Your task to perform on an android device: What's on Reddit today Image 0: 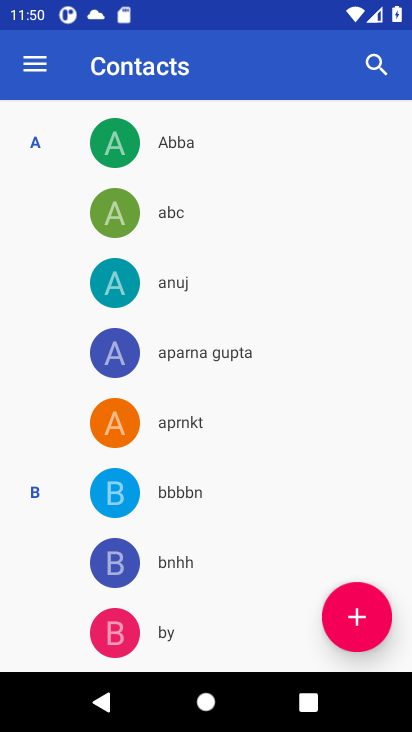
Step 0: press home button
Your task to perform on an android device: What's on Reddit today Image 1: 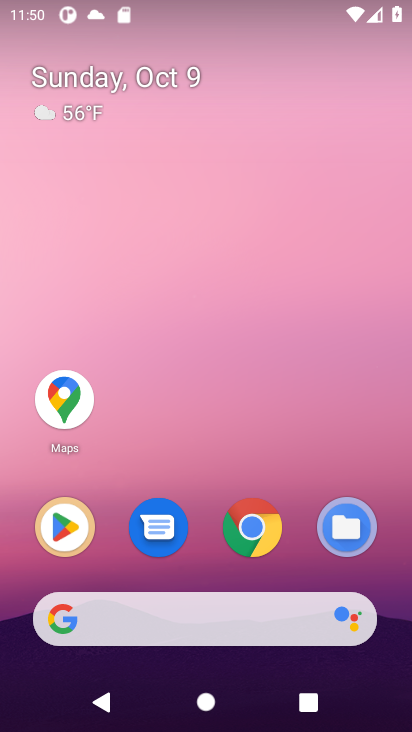
Step 1: click (112, 620)
Your task to perform on an android device: What's on Reddit today Image 2: 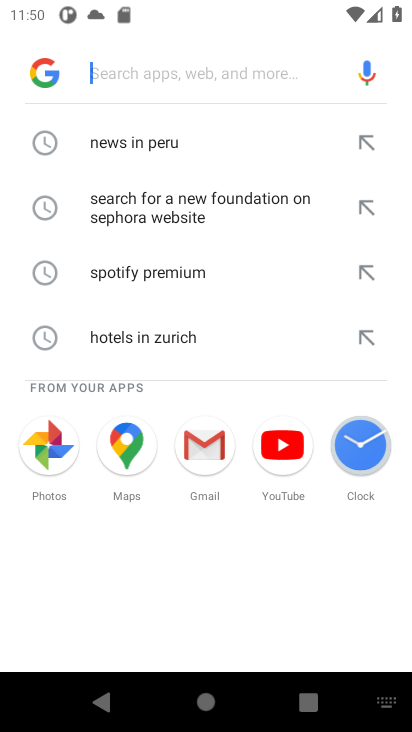
Step 2: click (124, 71)
Your task to perform on an android device: What's on Reddit today Image 3: 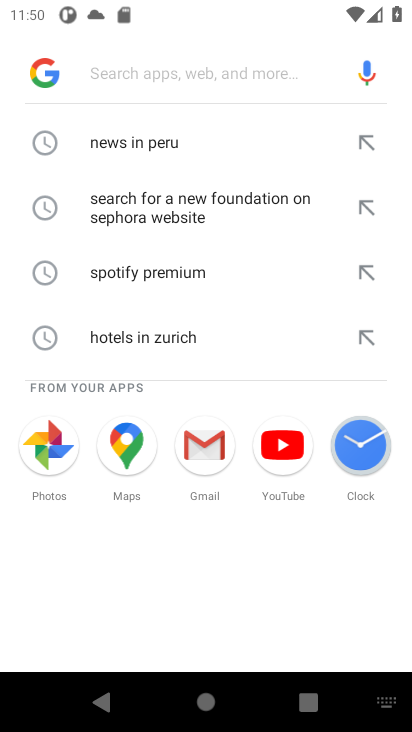
Step 3: type "What's on Reddit today"
Your task to perform on an android device: What's on Reddit today Image 4: 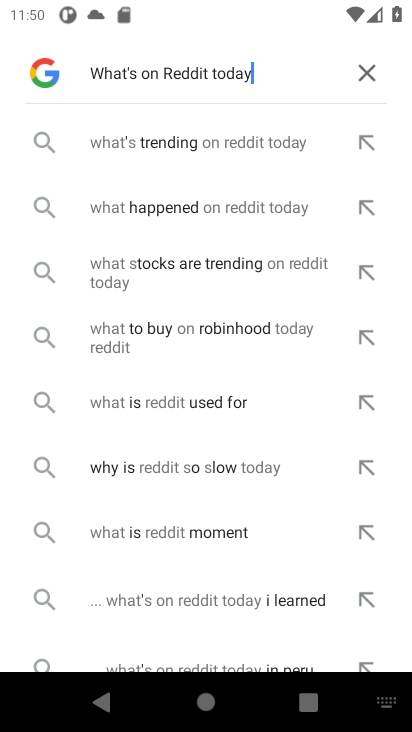
Step 4: click (141, 142)
Your task to perform on an android device: What's on Reddit today Image 5: 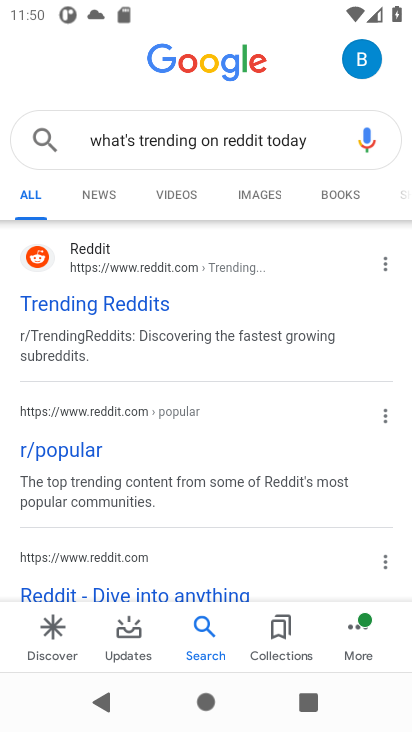
Step 5: drag from (171, 474) to (171, 386)
Your task to perform on an android device: What's on Reddit today Image 6: 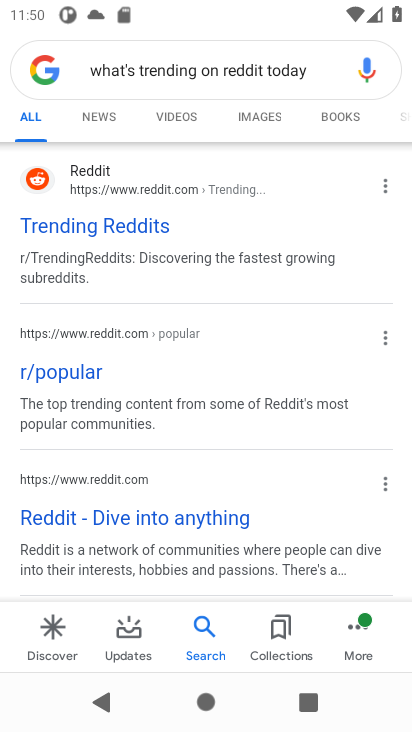
Step 6: click (126, 263)
Your task to perform on an android device: What's on Reddit today Image 7: 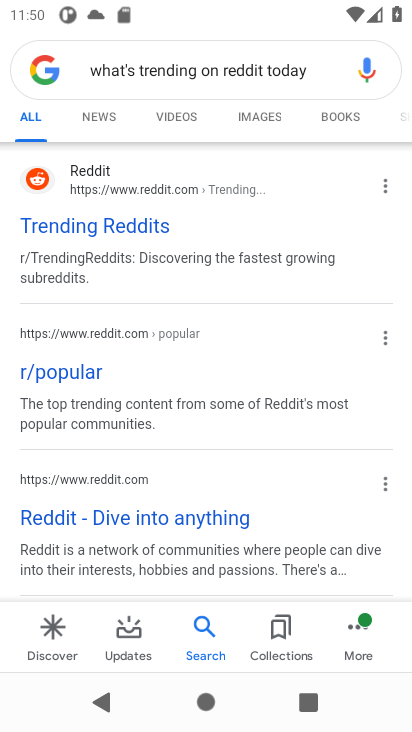
Step 7: click (119, 235)
Your task to perform on an android device: What's on Reddit today Image 8: 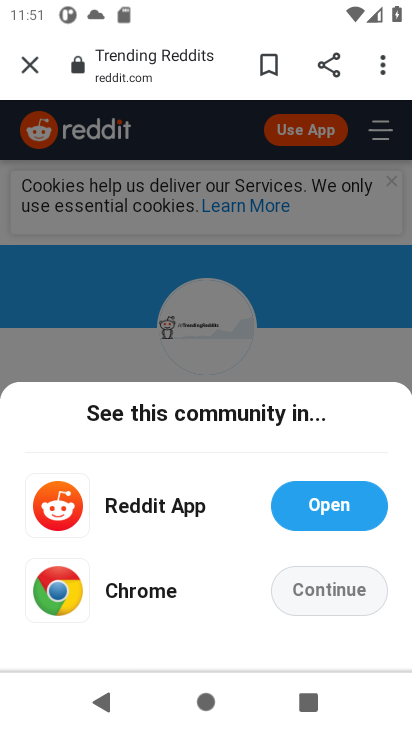
Step 8: click (337, 598)
Your task to perform on an android device: What's on Reddit today Image 9: 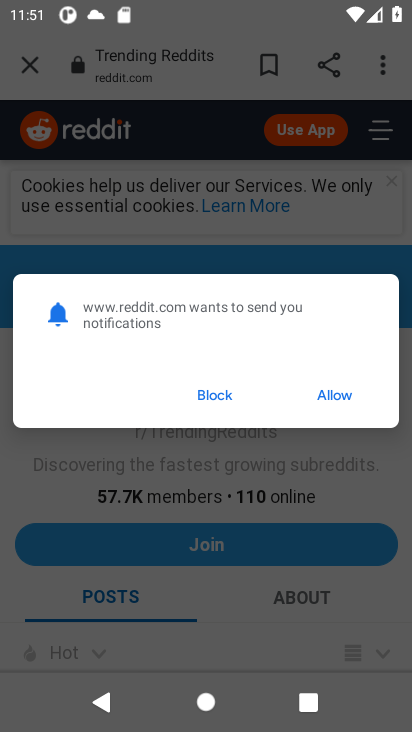
Step 9: click (208, 397)
Your task to perform on an android device: What's on Reddit today Image 10: 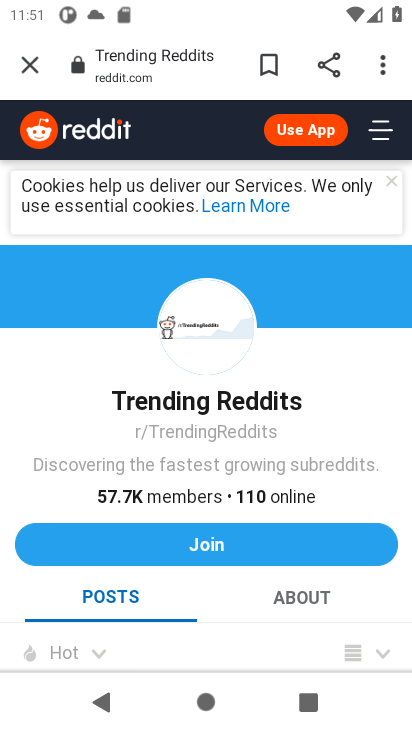
Step 10: task complete